Your task to perform on an android device: turn off picture-in-picture Image 0: 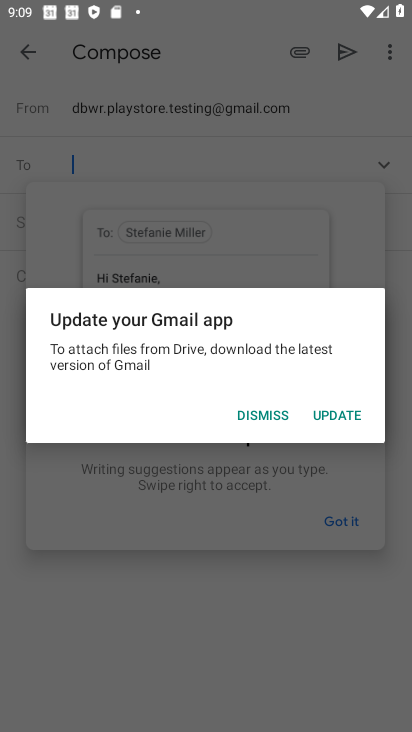
Step 0: press back button
Your task to perform on an android device: turn off picture-in-picture Image 1: 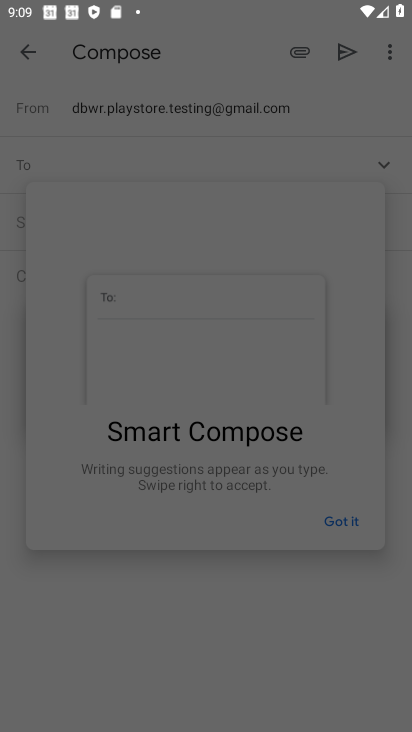
Step 1: press home button
Your task to perform on an android device: turn off picture-in-picture Image 2: 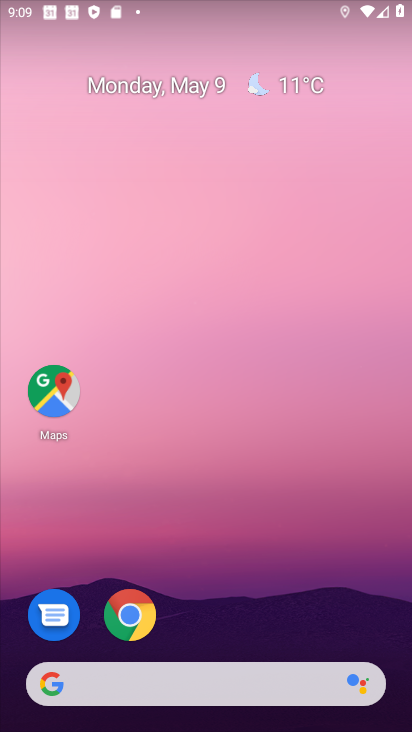
Step 2: drag from (273, 598) to (223, 29)
Your task to perform on an android device: turn off picture-in-picture Image 3: 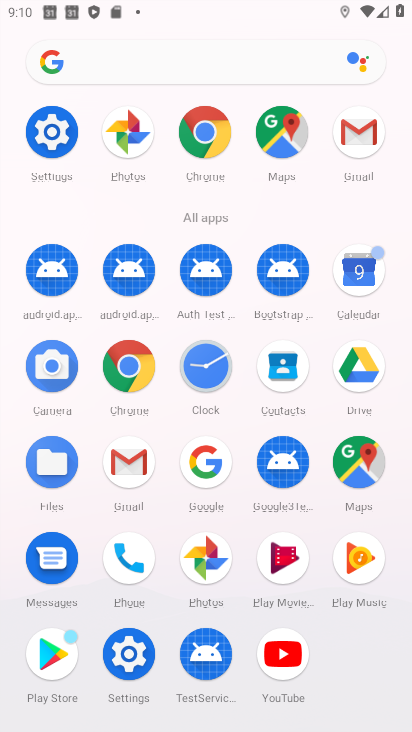
Step 3: click (53, 131)
Your task to perform on an android device: turn off picture-in-picture Image 4: 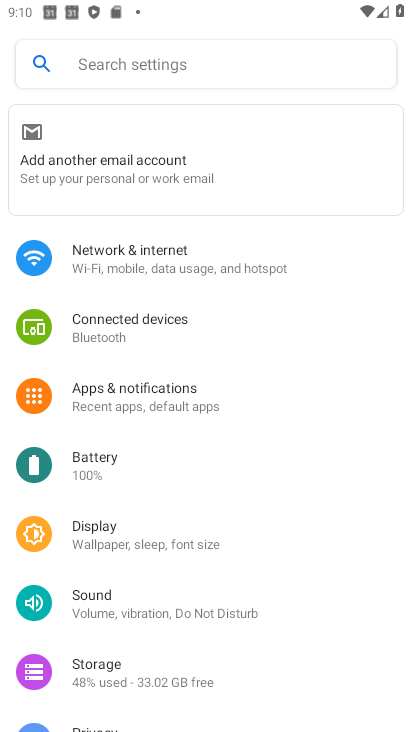
Step 4: drag from (302, 549) to (317, 279)
Your task to perform on an android device: turn off picture-in-picture Image 5: 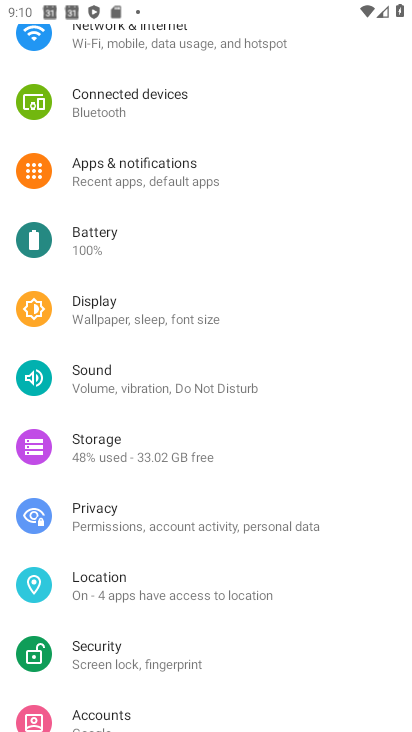
Step 5: click (181, 177)
Your task to perform on an android device: turn off picture-in-picture Image 6: 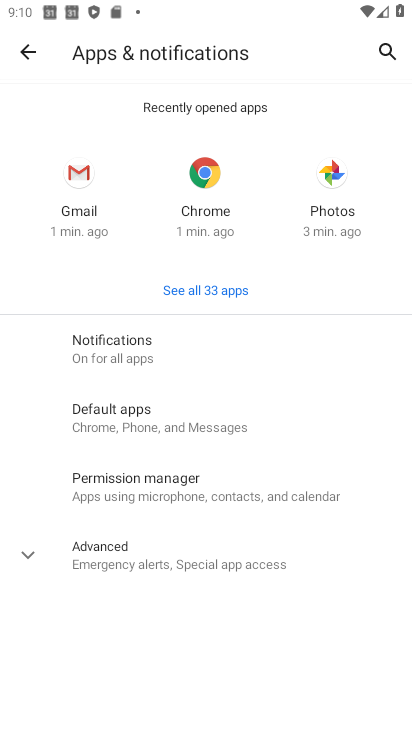
Step 6: click (85, 551)
Your task to perform on an android device: turn off picture-in-picture Image 7: 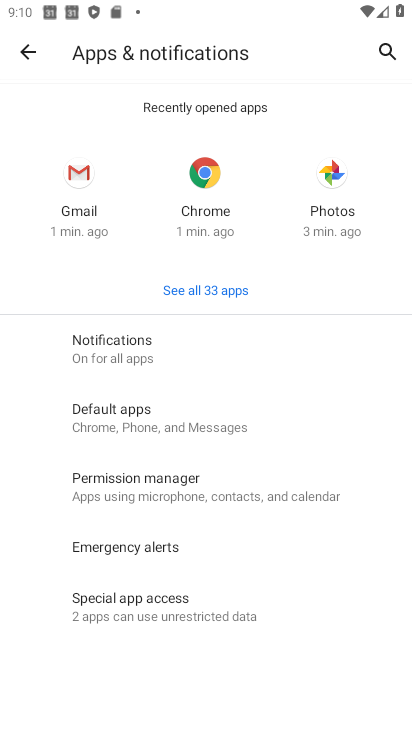
Step 7: click (134, 350)
Your task to perform on an android device: turn off picture-in-picture Image 8: 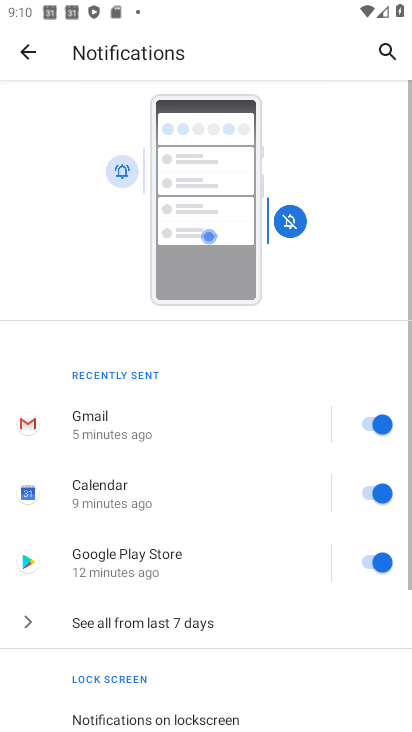
Step 8: drag from (235, 603) to (242, 73)
Your task to perform on an android device: turn off picture-in-picture Image 9: 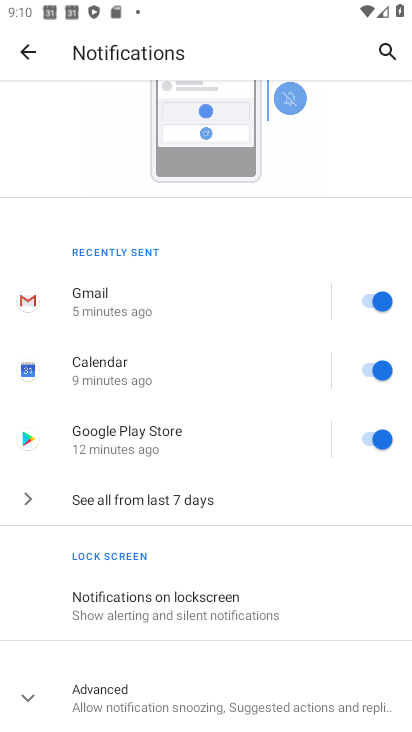
Step 9: click (34, 700)
Your task to perform on an android device: turn off picture-in-picture Image 10: 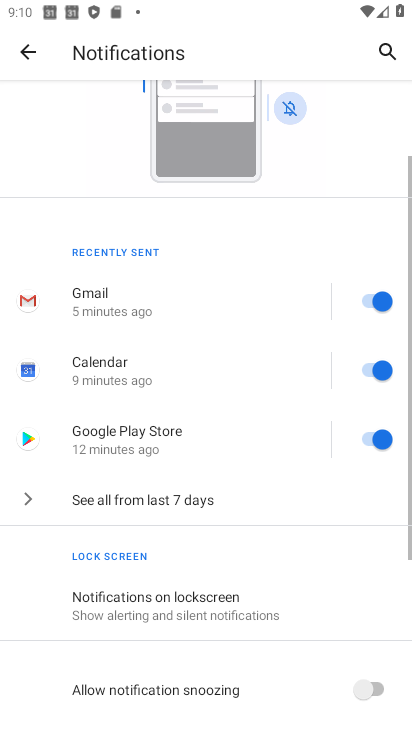
Step 10: drag from (237, 651) to (226, 281)
Your task to perform on an android device: turn off picture-in-picture Image 11: 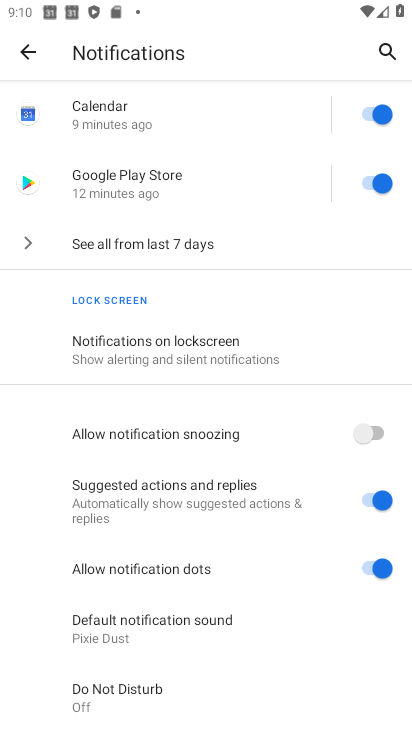
Step 11: drag from (171, 324) to (227, 711)
Your task to perform on an android device: turn off picture-in-picture Image 12: 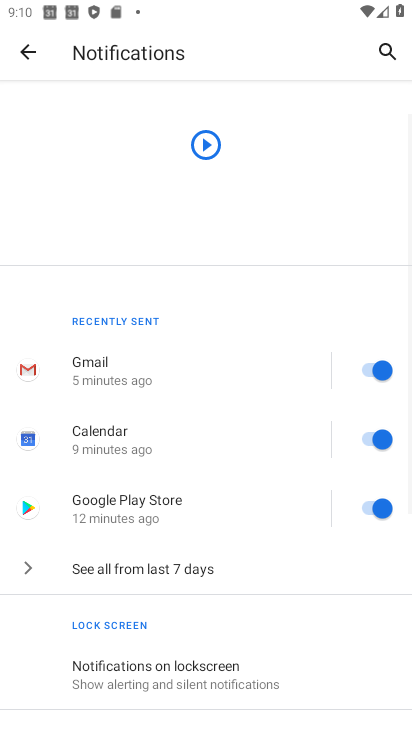
Step 12: drag from (192, 383) to (229, 606)
Your task to perform on an android device: turn off picture-in-picture Image 13: 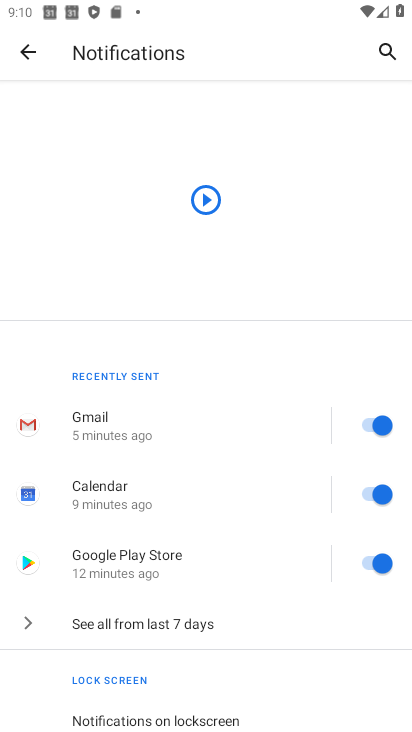
Step 13: click (19, 49)
Your task to perform on an android device: turn off picture-in-picture Image 14: 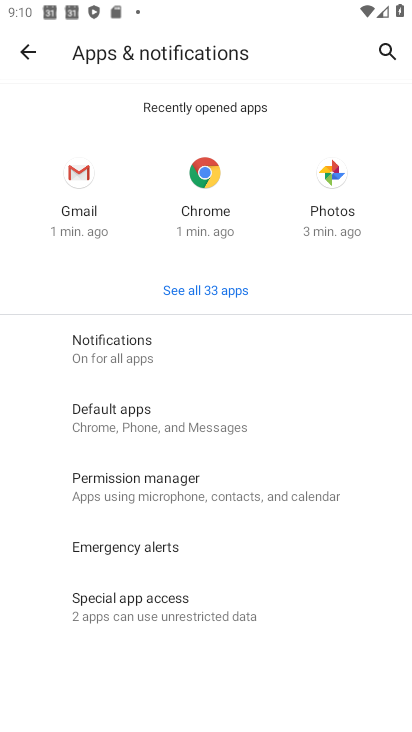
Step 14: click (168, 603)
Your task to perform on an android device: turn off picture-in-picture Image 15: 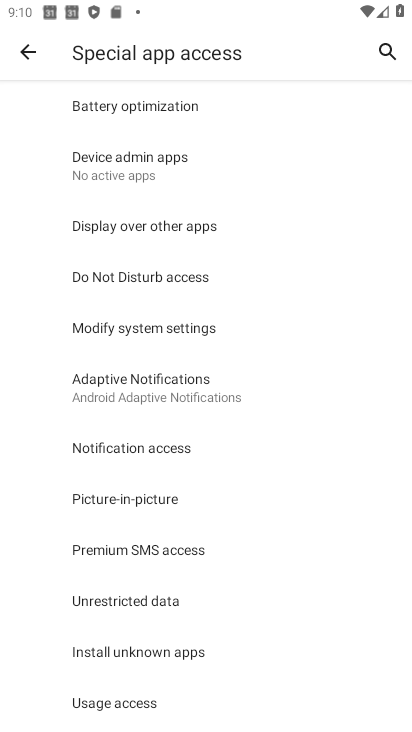
Step 15: click (160, 494)
Your task to perform on an android device: turn off picture-in-picture Image 16: 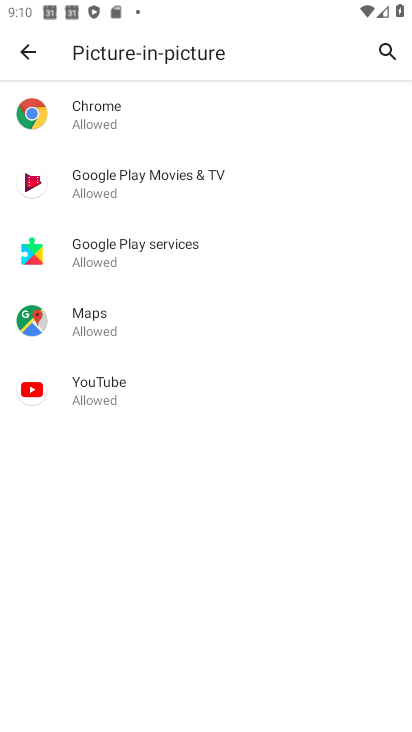
Step 16: click (172, 119)
Your task to perform on an android device: turn off picture-in-picture Image 17: 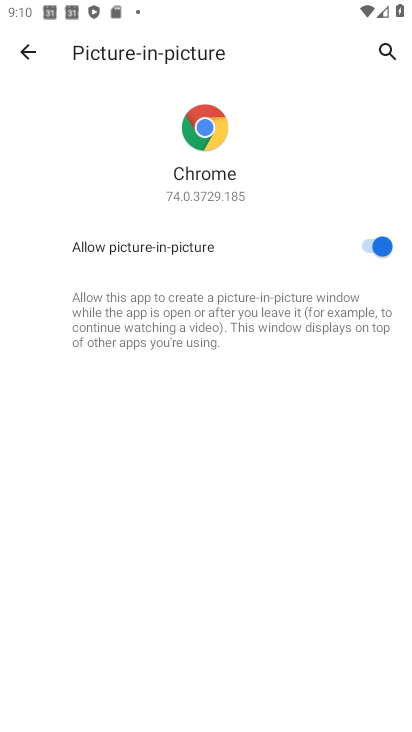
Step 17: click (367, 260)
Your task to perform on an android device: turn off picture-in-picture Image 18: 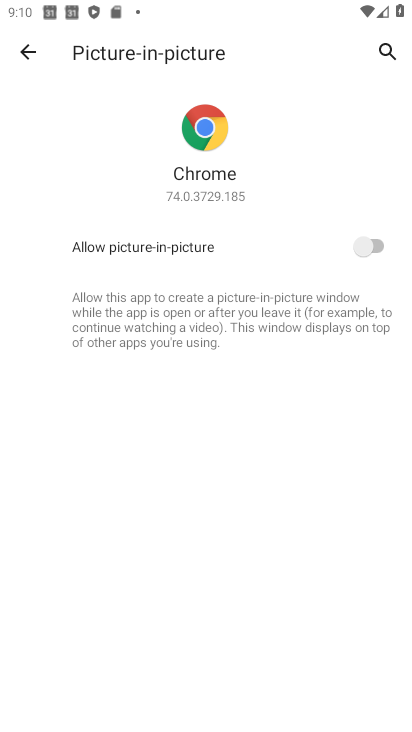
Step 18: click (18, 56)
Your task to perform on an android device: turn off picture-in-picture Image 19: 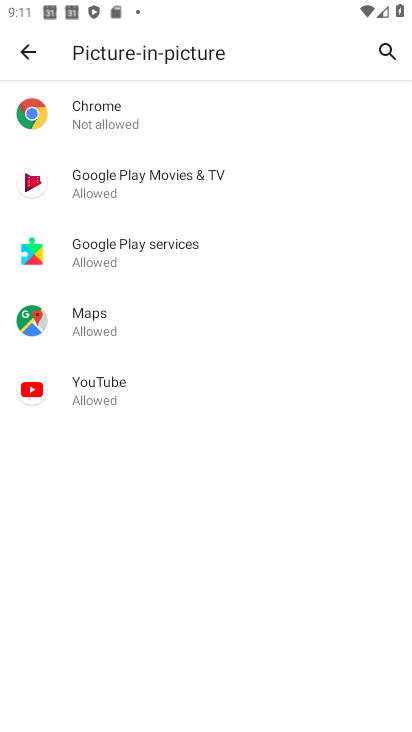
Step 19: click (165, 173)
Your task to perform on an android device: turn off picture-in-picture Image 20: 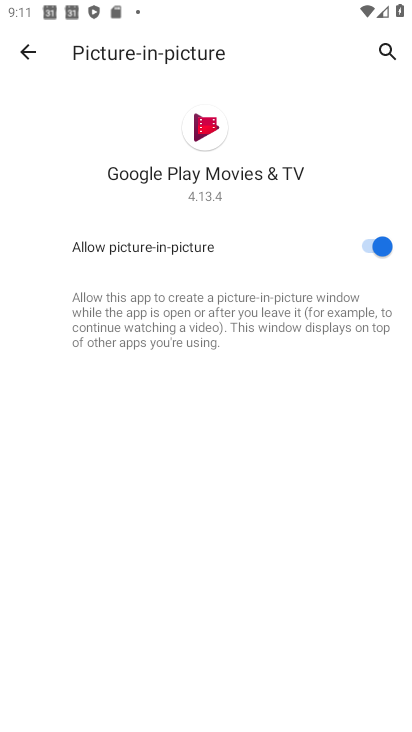
Step 20: click (373, 234)
Your task to perform on an android device: turn off picture-in-picture Image 21: 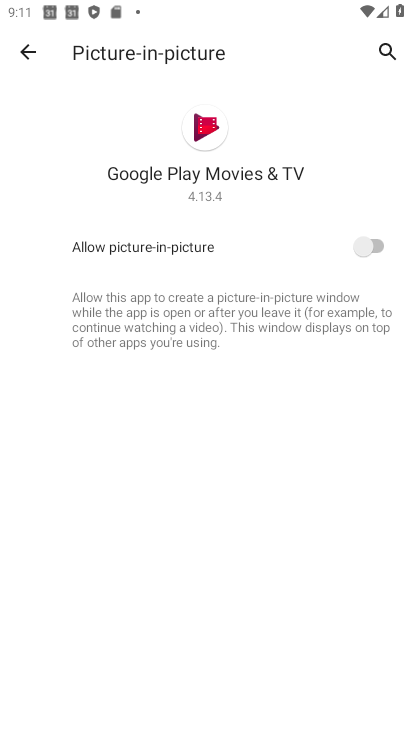
Step 21: click (26, 48)
Your task to perform on an android device: turn off picture-in-picture Image 22: 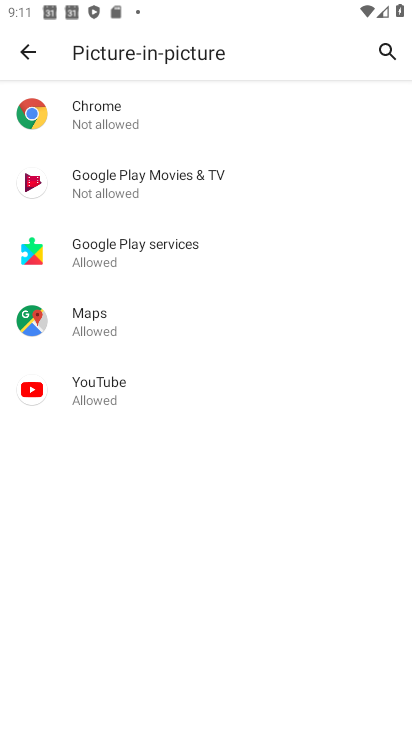
Step 22: click (85, 257)
Your task to perform on an android device: turn off picture-in-picture Image 23: 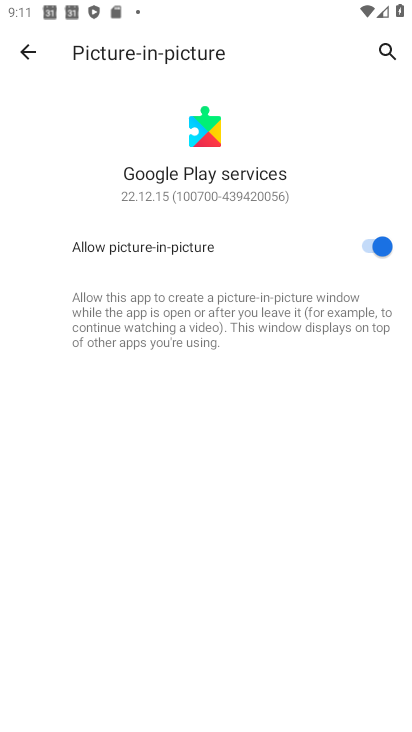
Step 23: click (368, 239)
Your task to perform on an android device: turn off picture-in-picture Image 24: 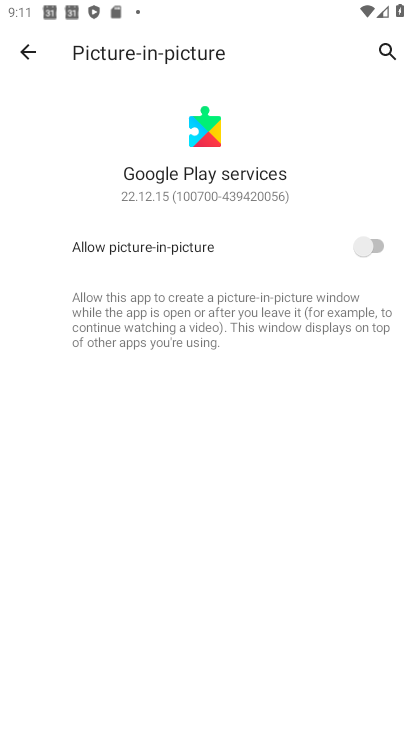
Step 24: click (25, 50)
Your task to perform on an android device: turn off picture-in-picture Image 25: 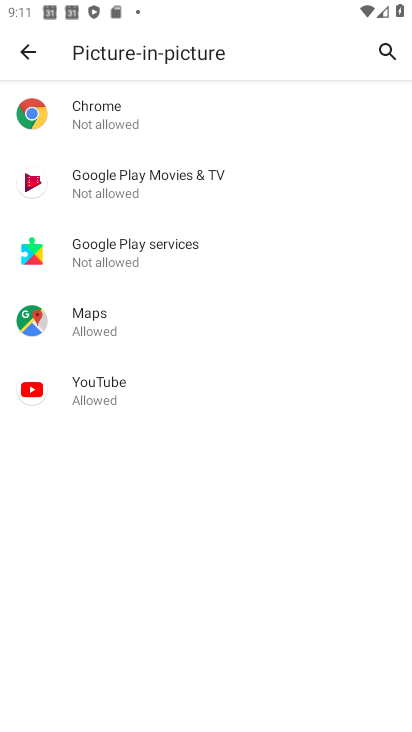
Step 25: click (92, 327)
Your task to perform on an android device: turn off picture-in-picture Image 26: 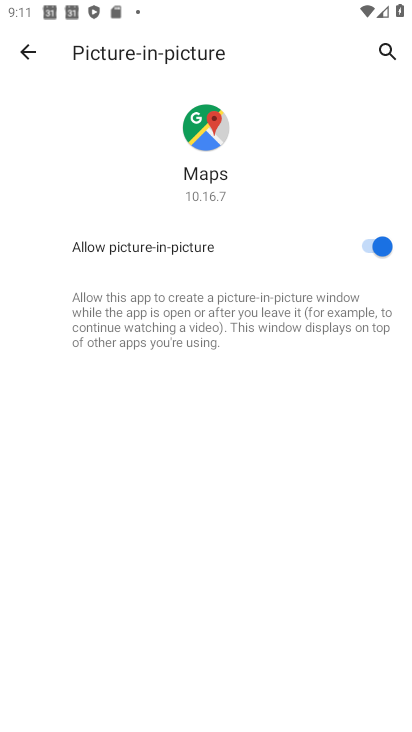
Step 26: click (380, 257)
Your task to perform on an android device: turn off picture-in-picture Image 27: 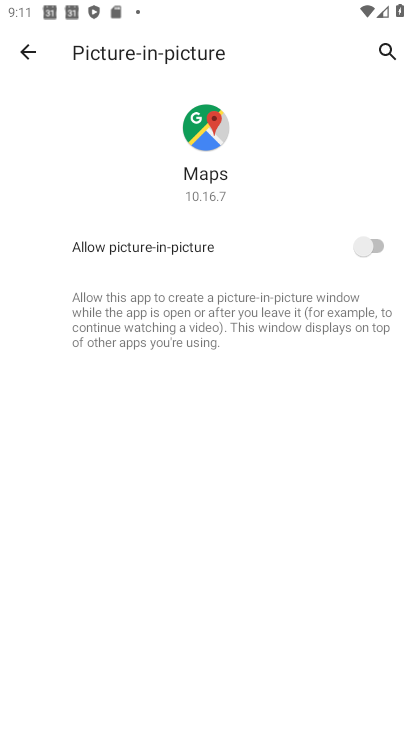
Step 27: click (14, 45)
Your task to perform on an android device: turn off picture-in-picture Image 28: 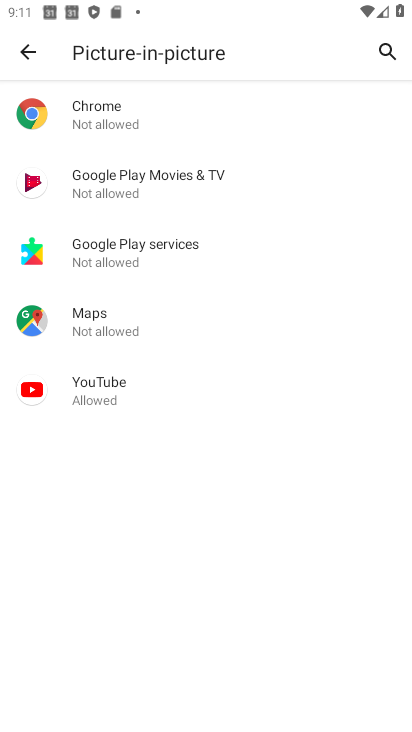
Step 28: click (111, 386)
Your task to perform on an android device: turn off picture-in-picture Image 29: 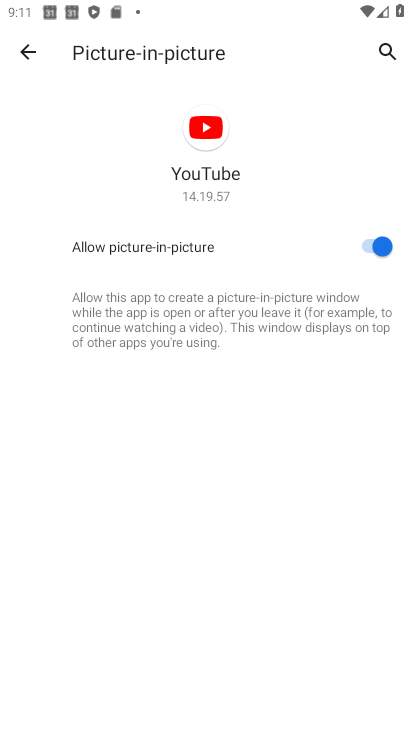
Step 29: click (373, 253)
Your task to perform on an android device: turn off picture-in-picture Image 30: 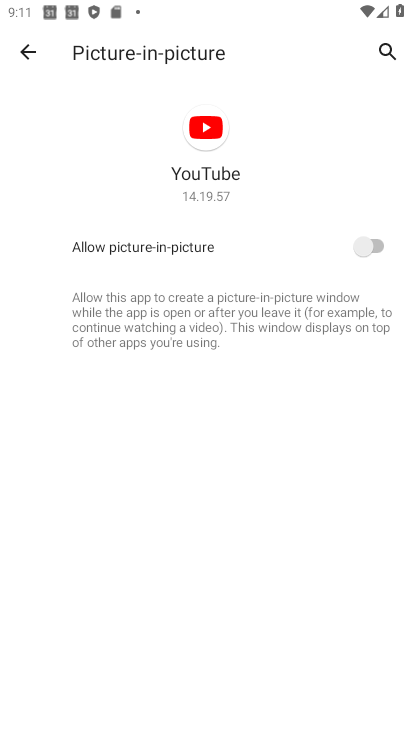
Step 30: click (21, 56)
Your task to perform on an android device: turn off picture-in-picture Image 31: 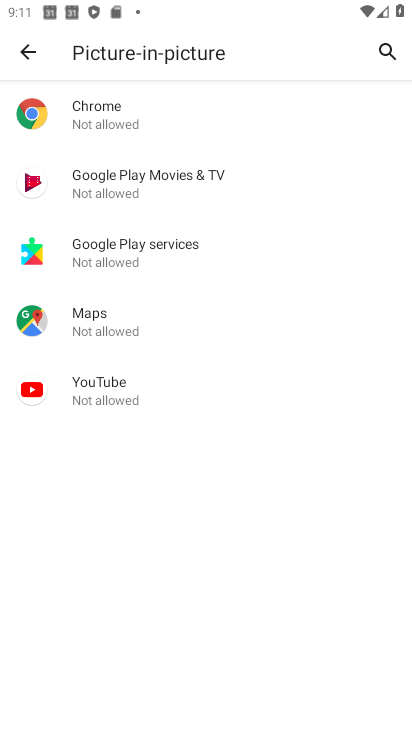
Step 31: task complete